Your task to perform on an android device: Go to settings Image 0: 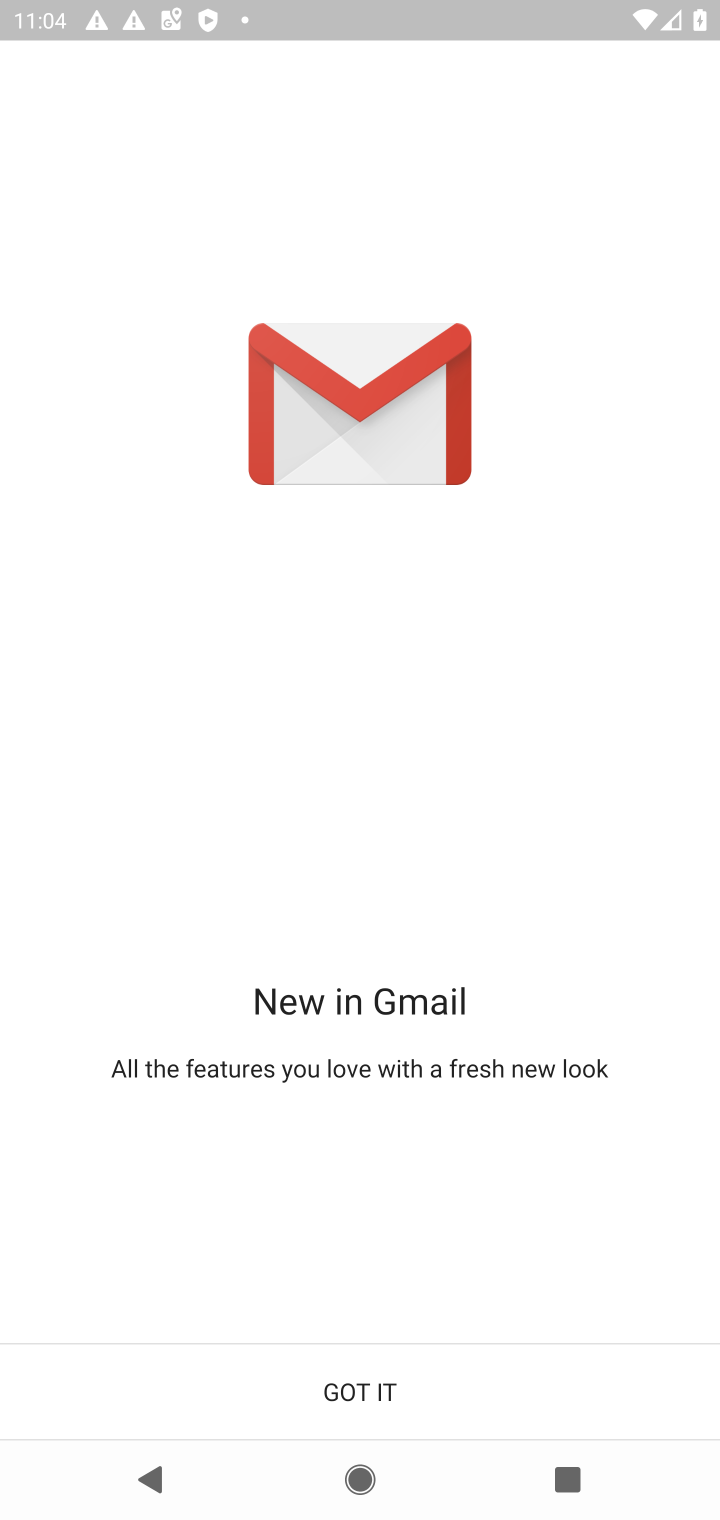
Step 0: press home button
Your task to perform on an android device: Go to settings Image 1: 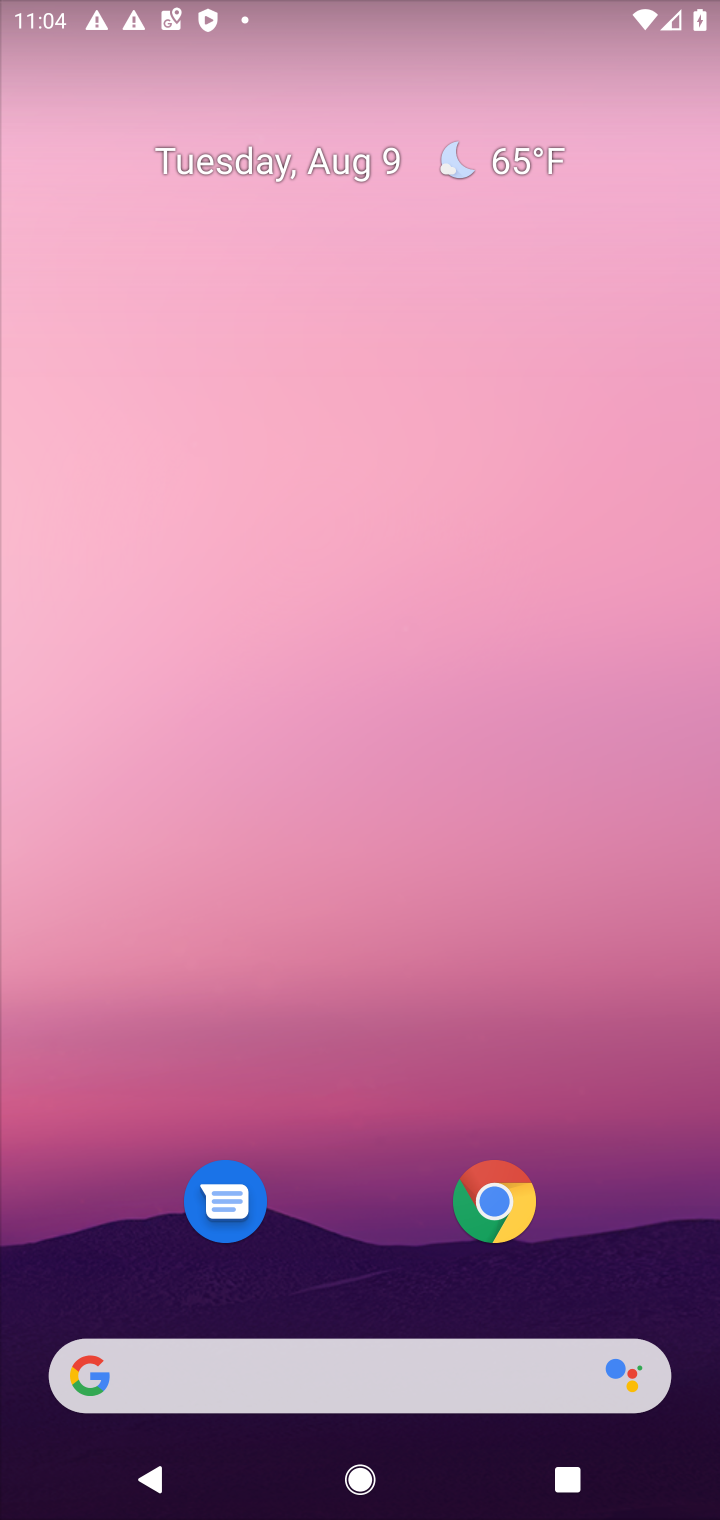
Step 1: drag from (342, 1247) to (379, 142)
Your task to perform on an android device: Go to settings Image 2: 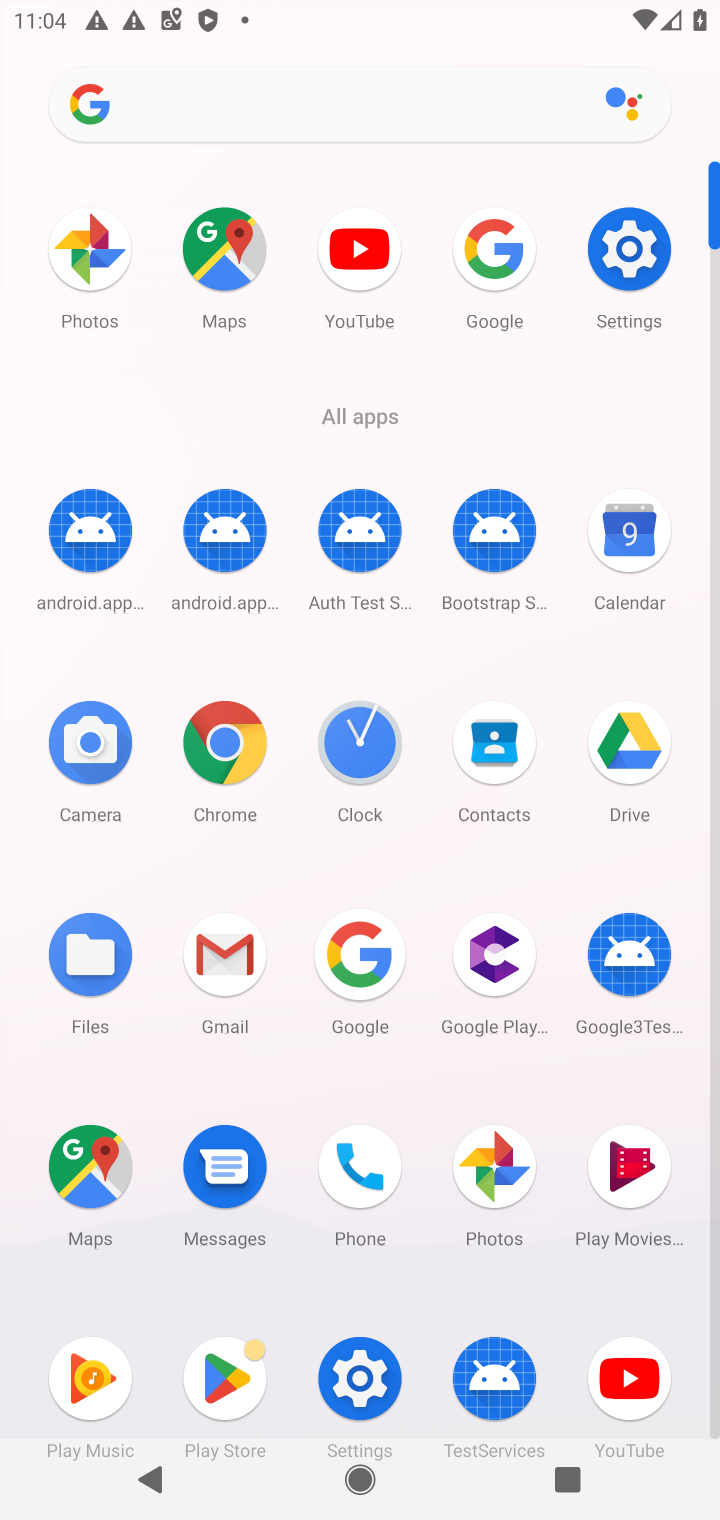
Step 2: click (644, 241)
Your task to perform on an android device: Go to settings Image 3: 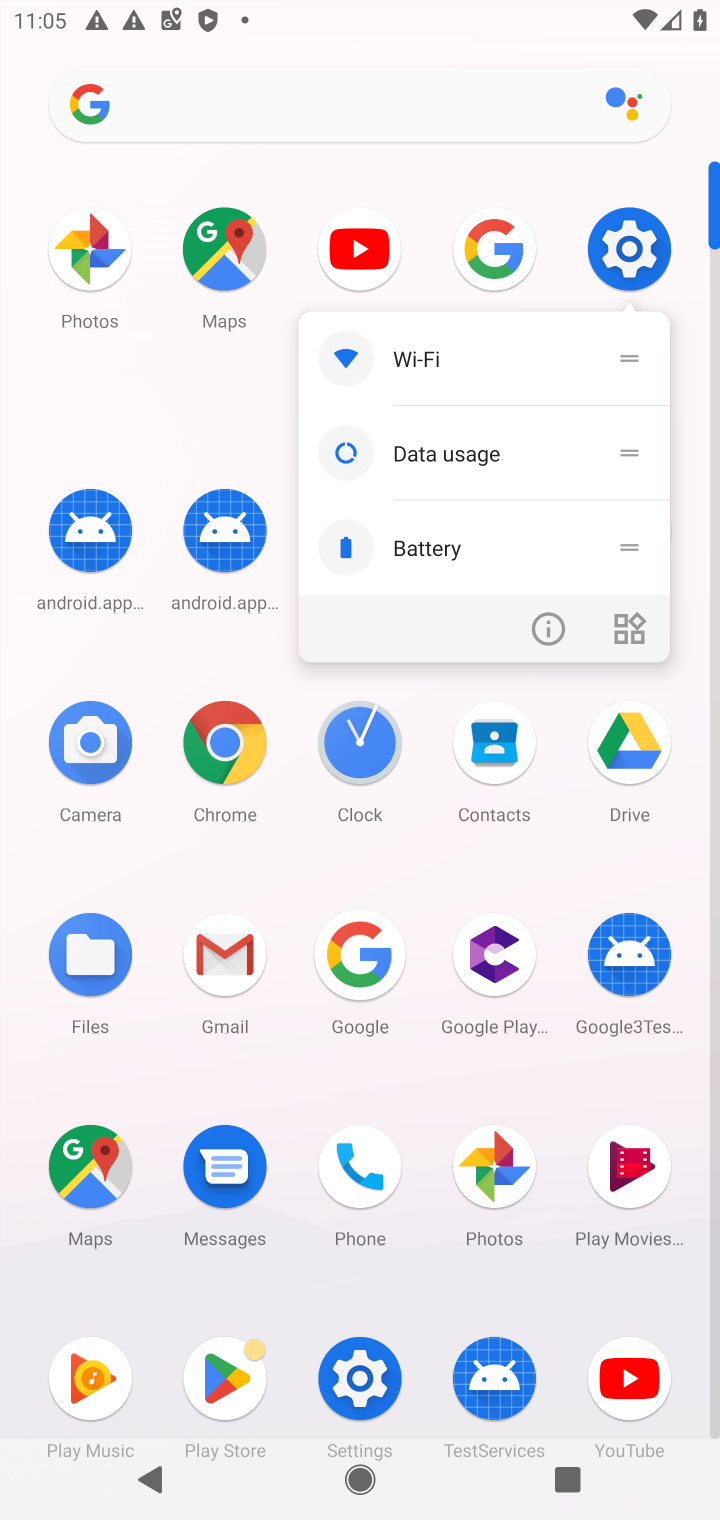
Step 3: click (603, 212)
Your task to perform on an android device: Go to settings Image 4: 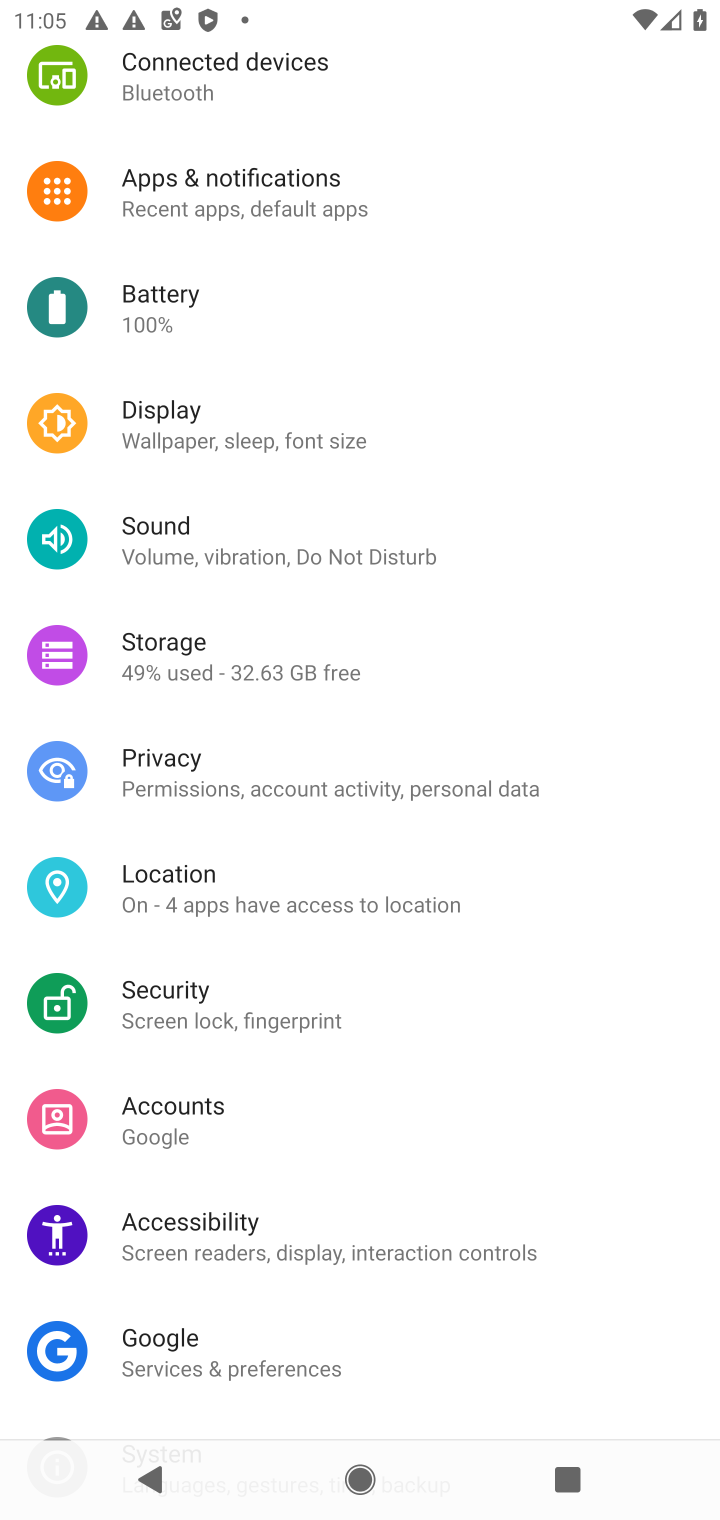
Step 4: task complete